Your task to perform on an android device: When is my next appointment? Image 0: 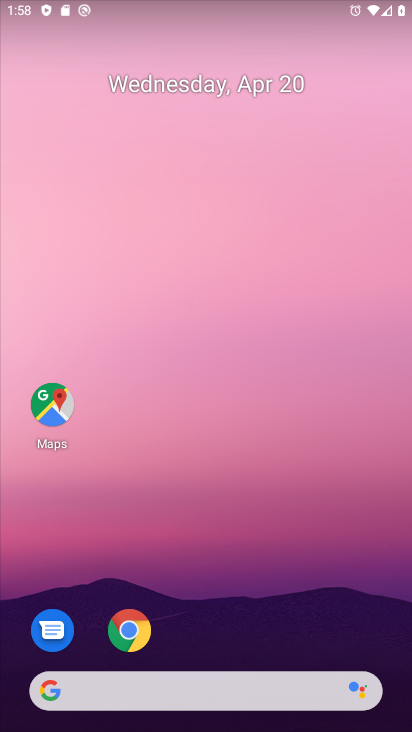
Step 0: drag from (225, 595) to (112, 191)
Your task to perform on an android device: When is my next appointment? Image 1: 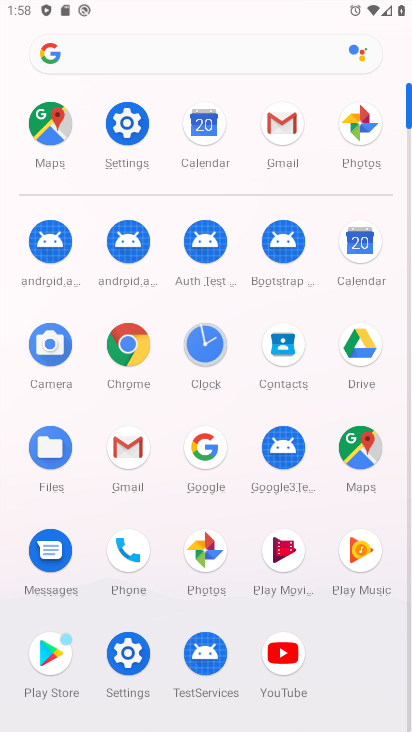
Step 1: click (364, 246)
Your task to perform on an android device: When is my next appointment? Image 2: 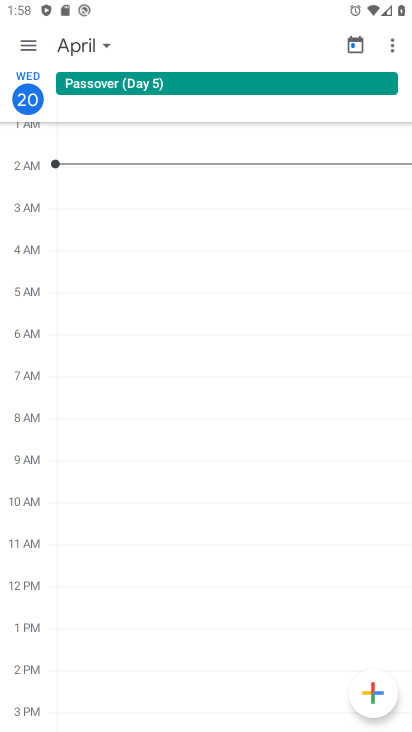
Step 2: click (22, 44)
Your task to perform on an android device: When is my next appointment? Image 3: 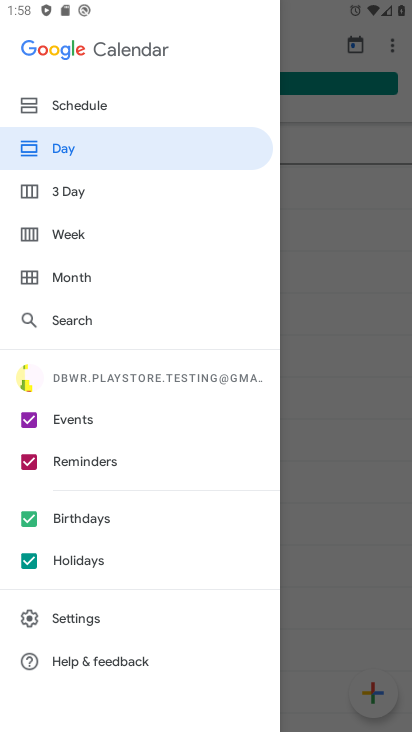
Step 3: click (80, 100)
Your task to perform on an android device: When is my next appointment? Image 4: 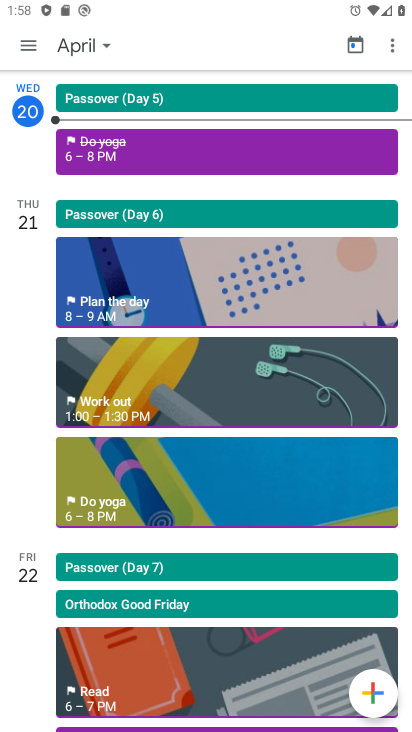
Step 4: click (213, 296)
Your task to perform on an android device: When is my next appointment? Image 5: 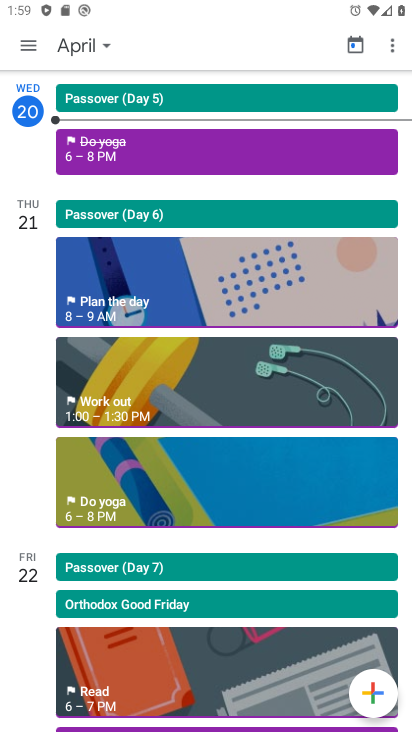
Step 5: task complete